Your task to perform on an android device: Open calendar and show me the first week of next month Image 0: 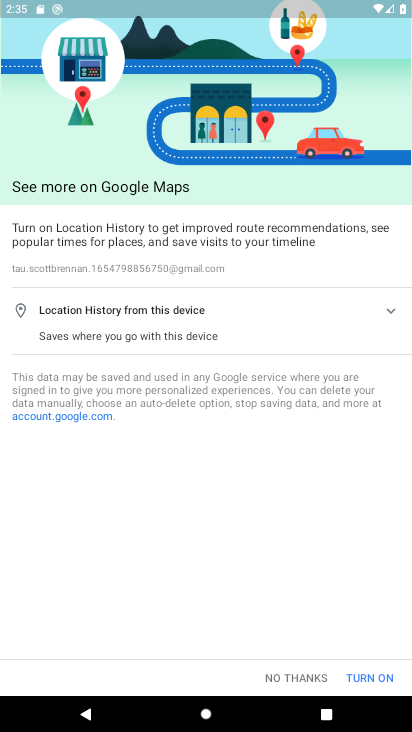
Step 0: press home button
Your task to perform on an android device: Open calendar and show me the first week of next month Image 1: 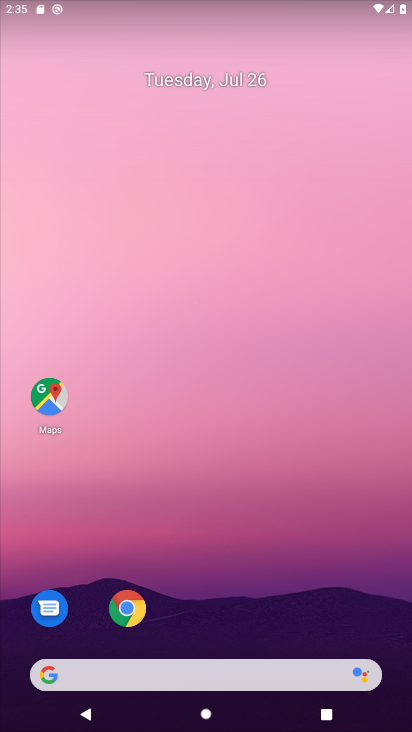
Step 1: drag from (258, 596) to (187, 198)
Your task to perform on an android device: Open calendar and show me the first week of next month Image 2: 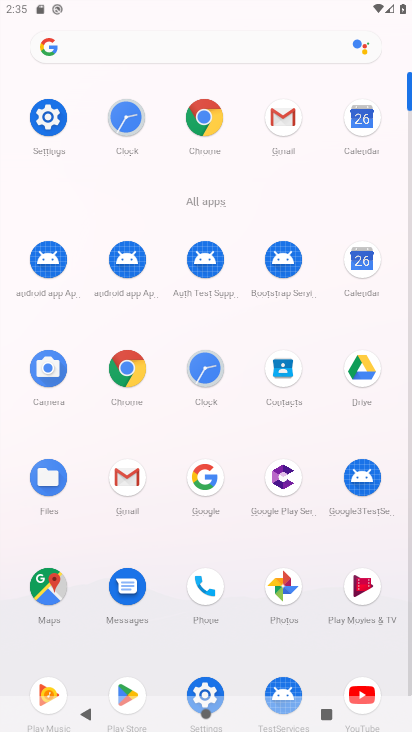
Step 2: click (357, 259)
Your task to perform on an android device: Open calendar and show me the first week of next month Image 3: 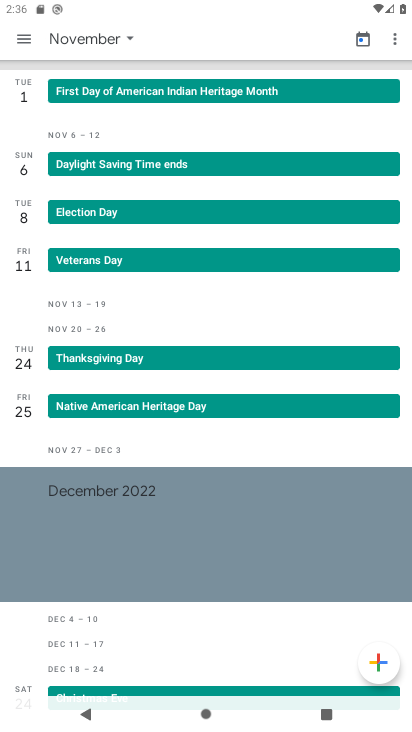
Step 3: click (17, 39)
Your task to perform on an android device: Open calendar and show me the first week of next month Image 4: 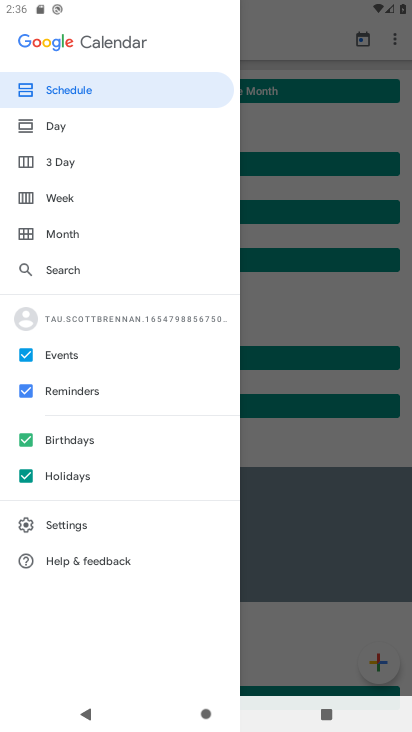
Step 4: click (78, 191)
Your task to perform on an android device: Open calendar and show me the first week of next month Image 5: 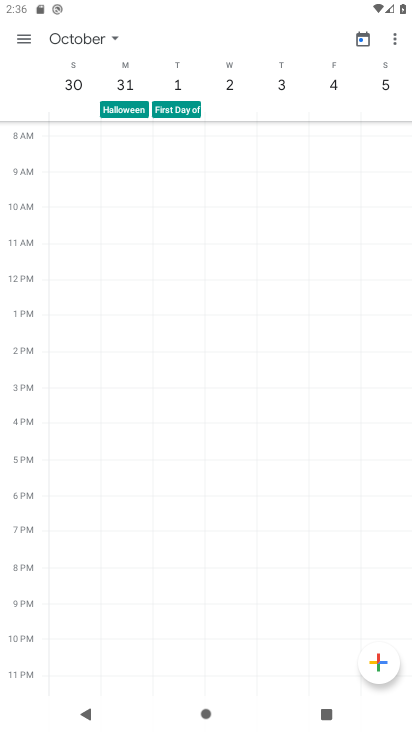
Step 5: click (95, 27)
Your task to perform on an android device: Open calendar and show me the first week of next month Image 6: 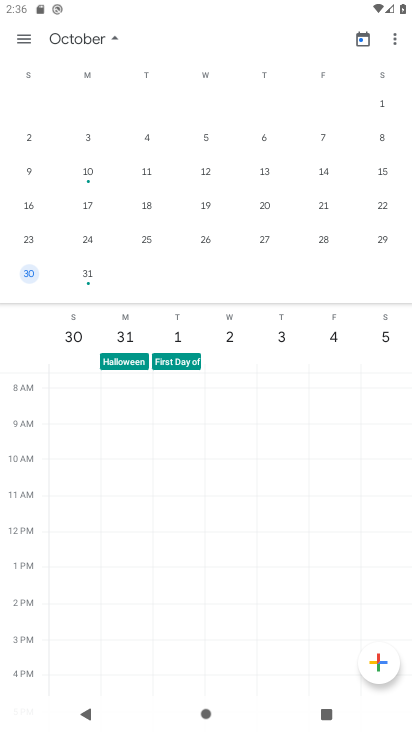
Step 6: click (361, 243)
Your task to perform on an android device: Open calendar and show me the first week of next month Image 7: 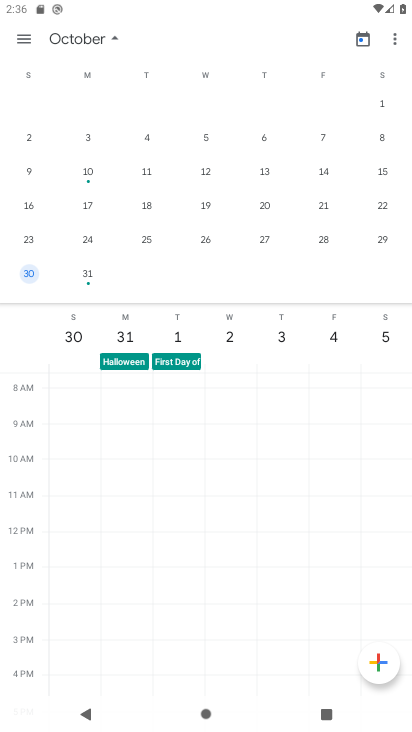
Step 7: drag from (101, 219) to (402, 197)
Your task to perform on an android device: Open calendar and show me the first week of next month Image 8: 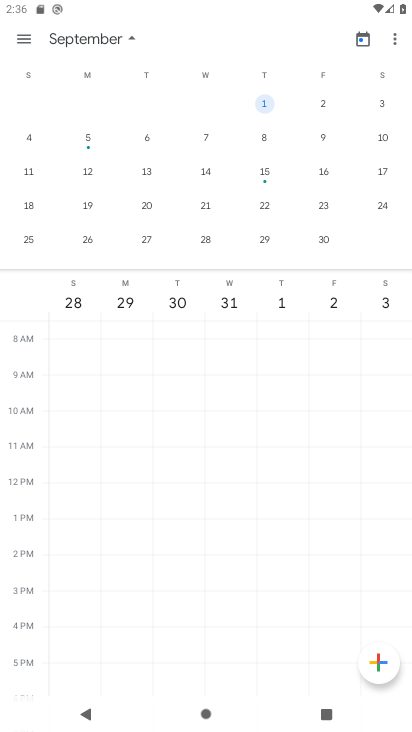
Step 8: drag from (53, 160) to (411, 167)
Your task to perform on an android device: Open calendar and show me the first week of next month Image 9: 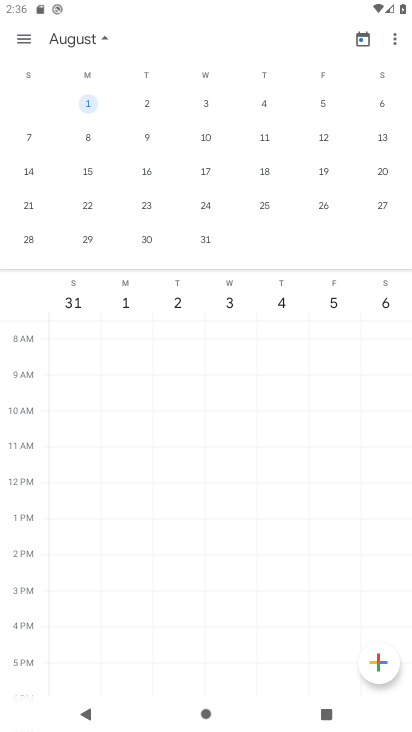
Step 9: click (269, 103)
Your task to perform on an android device: Open calendar and show me the first week of next month Image 10: 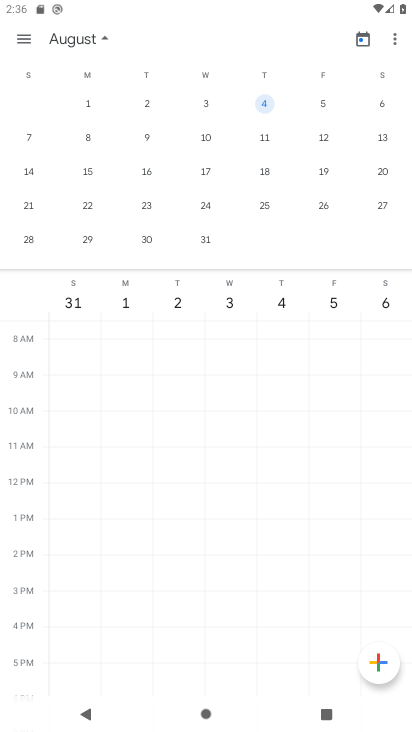
Step 10: task complete